Your task to perform on an android device: change notification settings in the gmail app Image 0: 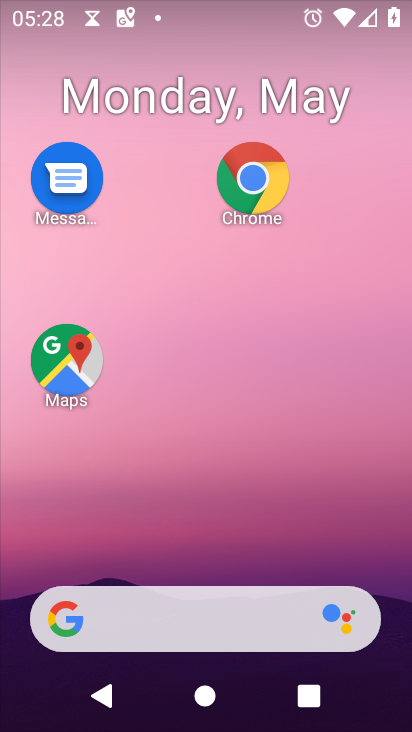
Step 0: drag from (217, 563) to (192, 12)
Your task to perform on an android device: change notification settings in the gmail app Image 1: 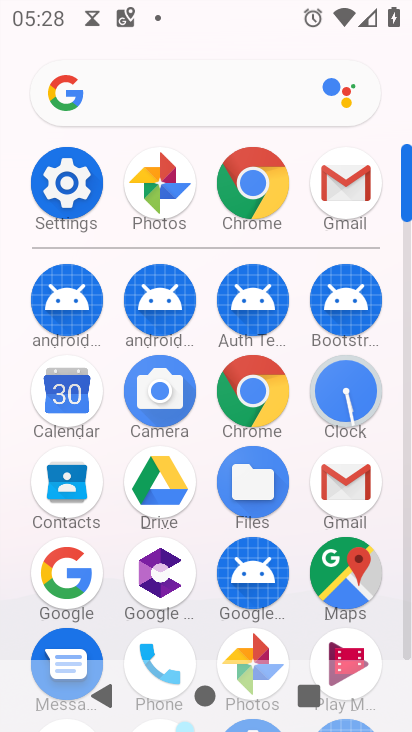
Step 1: drag from (193, 639) to (189, 311)
Your task to perform on an android device: change notification settings in the gmail app Image 2: 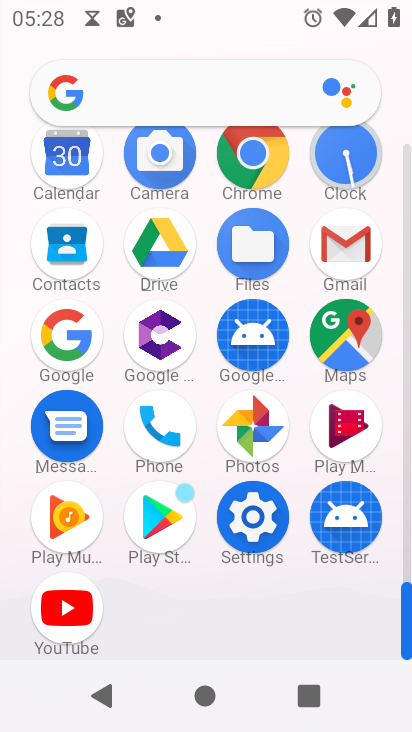
Step 2: click (359, 222)
Your task to perform on an android device: change notification settings in the gmail app Image 3: 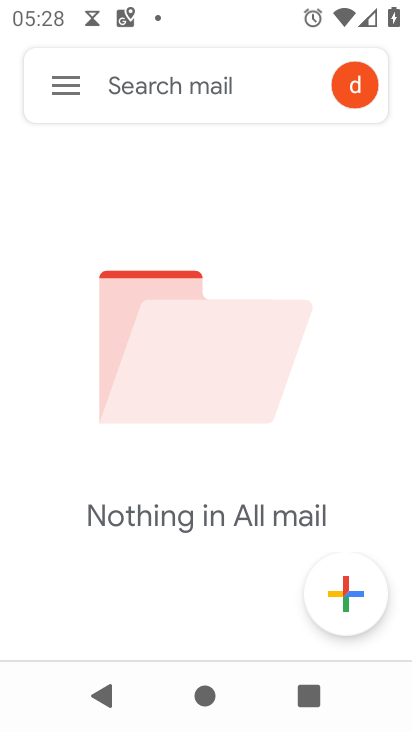
Step 3: click (60, 87)
Your task to perform on an android device: change notification settings in the gmail app Image 4: 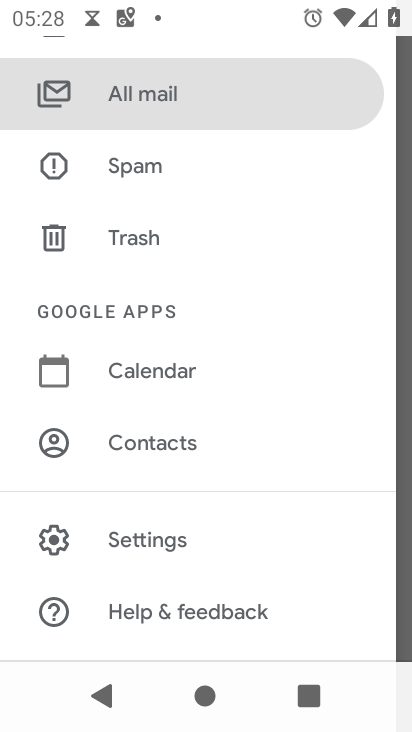
Step 4: click (157, 539)
Your task to perform on an android device: change notification settings in the gmail app Image 5: 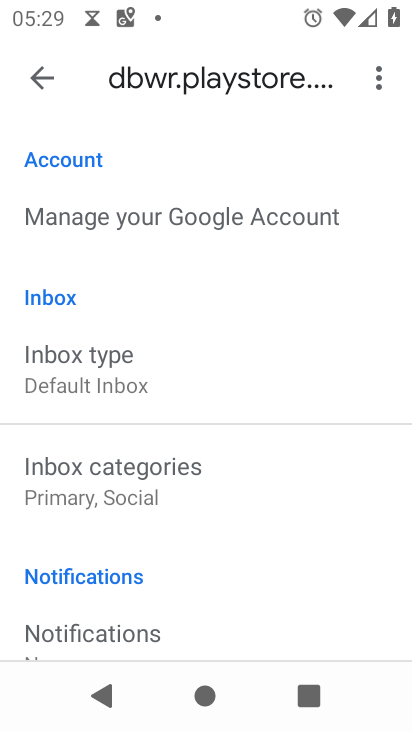
Step 5: click (114, 629)
Your task to perform on an android device: change notification settings in the gmail app Image 6: 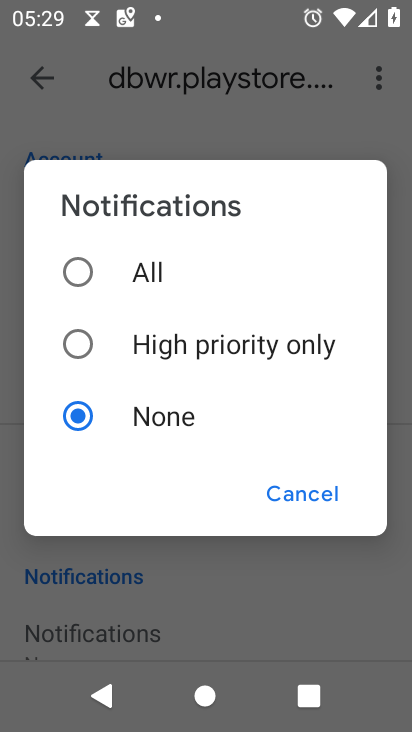
Step 6: click (90, 276)
Your task to perform on an android device: change notification settings in the gmail app Image 7: 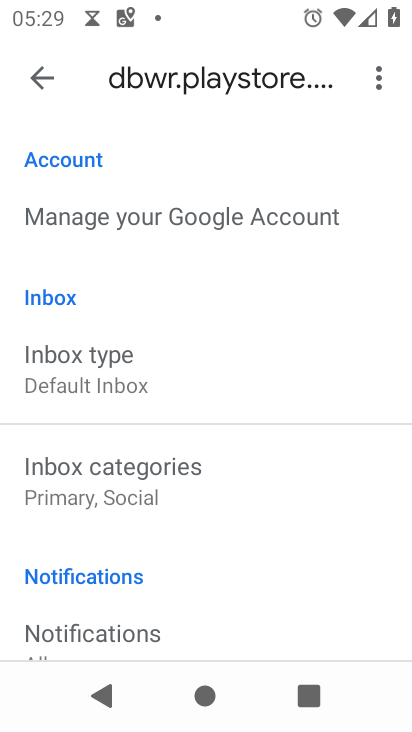
Step 7: task complete